Your task to perform on an android device: turn on sleep mode Image 0: 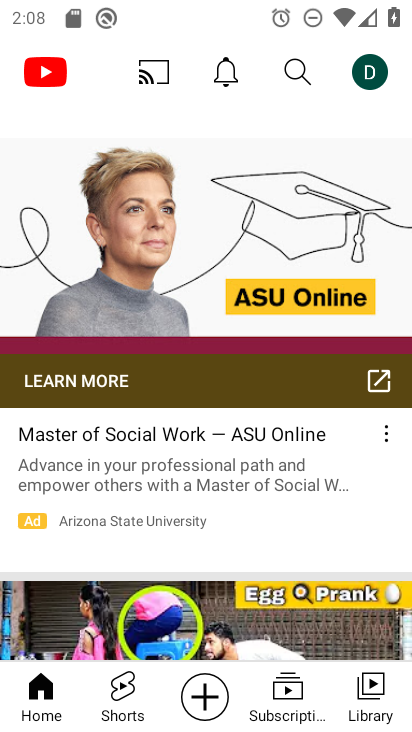
Step 0: press home button
Your task to perform on an android device: turn on sleep mode Image 1: 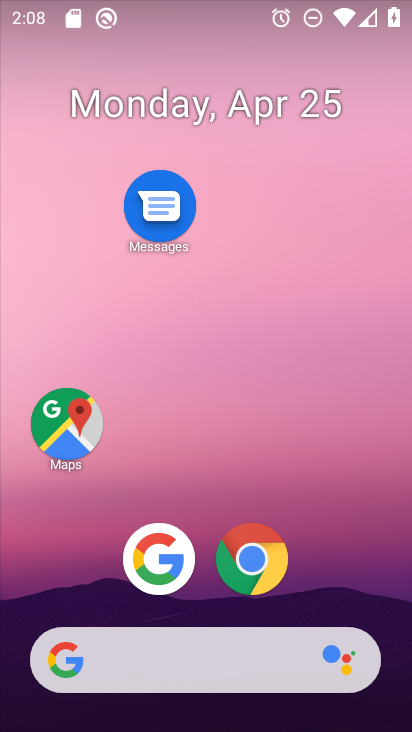
Step 1: drag from (348, 555) to (371, 93)
Your task to perform on an android device: turn on sleep mode Image 2: 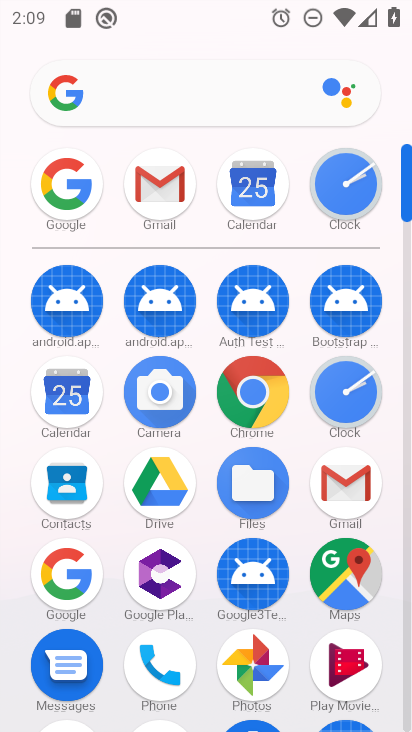
Step 2: drag from (201, 624) to (223, 296)
Your task to perform on an android device: turn on sleep mode Image 3: 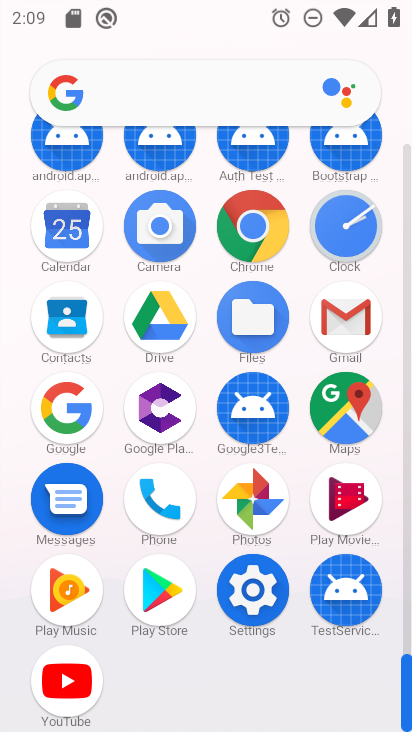
Step 3: click (252, 594)
Your task to perform on an android device: turn on sleep mode Image 4: 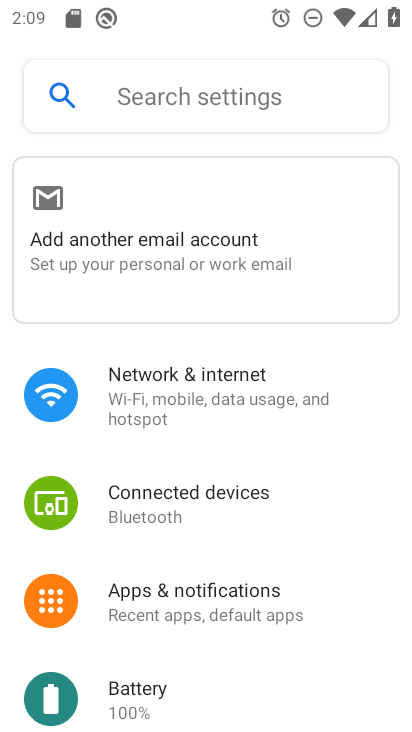
Step 4: drag from (276, 630) to (292, 324)
Your task to perform on an android device: turn on sleep mode Image 5: 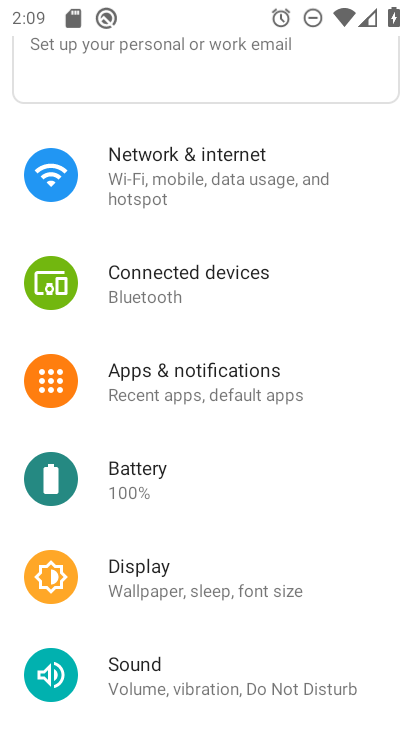
Step 5: click (190, 580)
Your task to perform on an android device: turn on sleep mode Image 6: 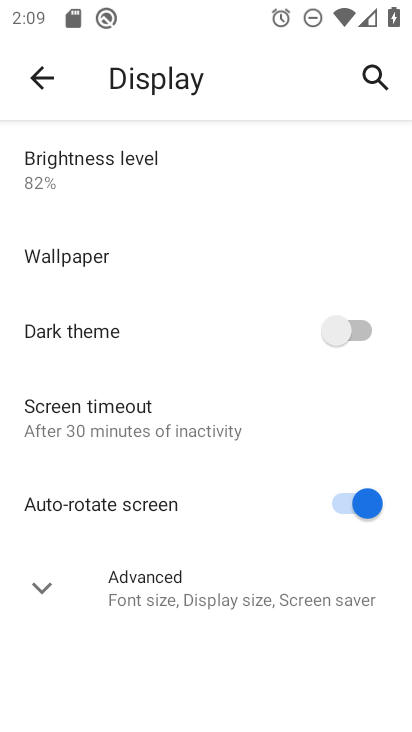
Step 6: click (105, 424)
Your task to perform on an android device: turn on sleep mode Image 7: 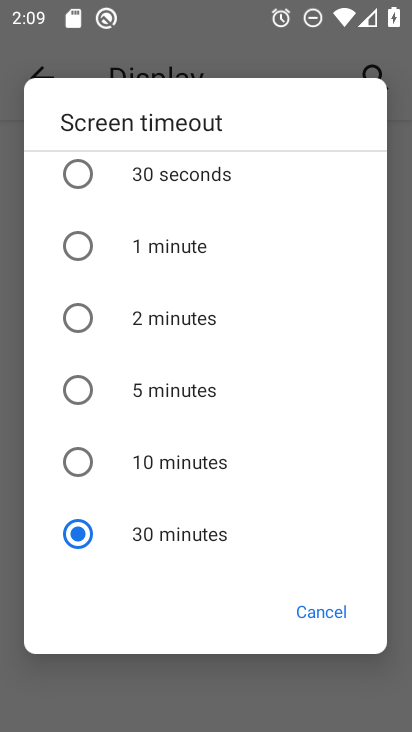
Step 7: task complete